Your task to perform on an android device: Open the Play Movies app and select the watchlist tab. Image 0: 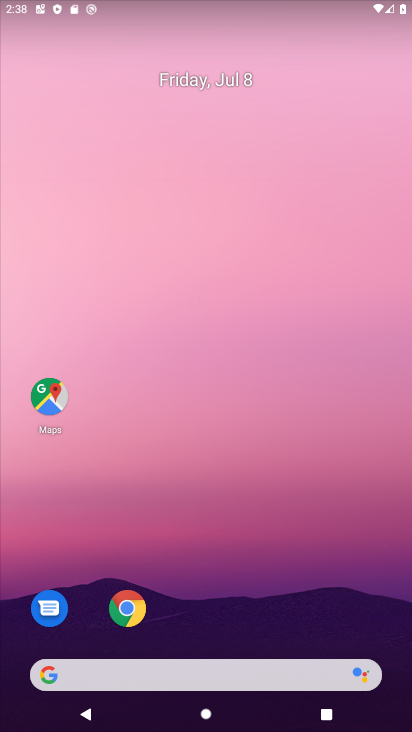
Step 0: drag from (309, 629) to (257, 27)
Your task to perform on an android device: Open the Play Movies app and select the watchlist tab. Image 1: 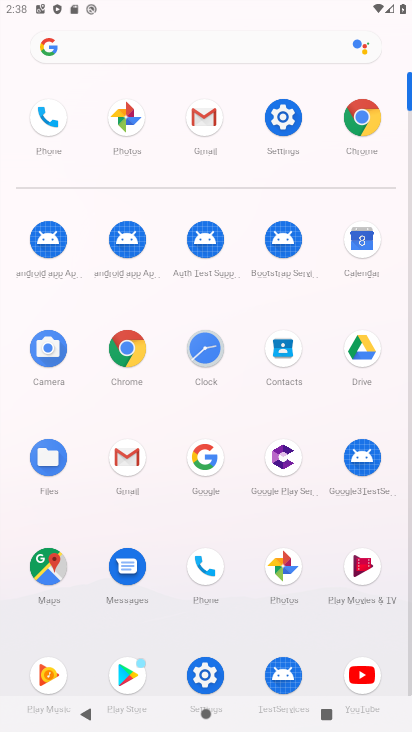
Step 1: click (359, 568)
Your task to perform on an android device: Open the Play Movies app and select the watchlist tab. Image 2: 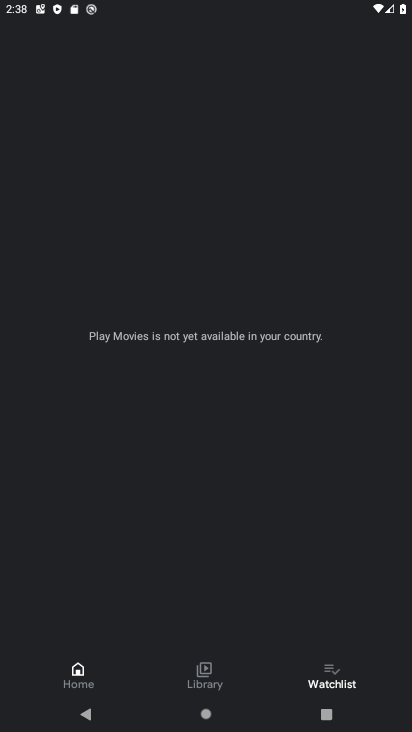
Step 2: click (336, 667)
Your task to perform on an android device: Open the Play Movies app and select the watchlist tab. Image 3: 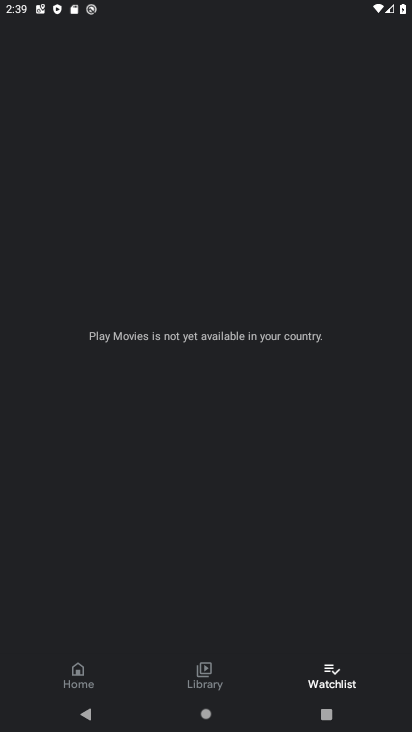
Step 3: task complete